Your task to perform on an android device: Search for "alienware aurora" on ebay, select the first entry, and add it to the cart. Image 0: 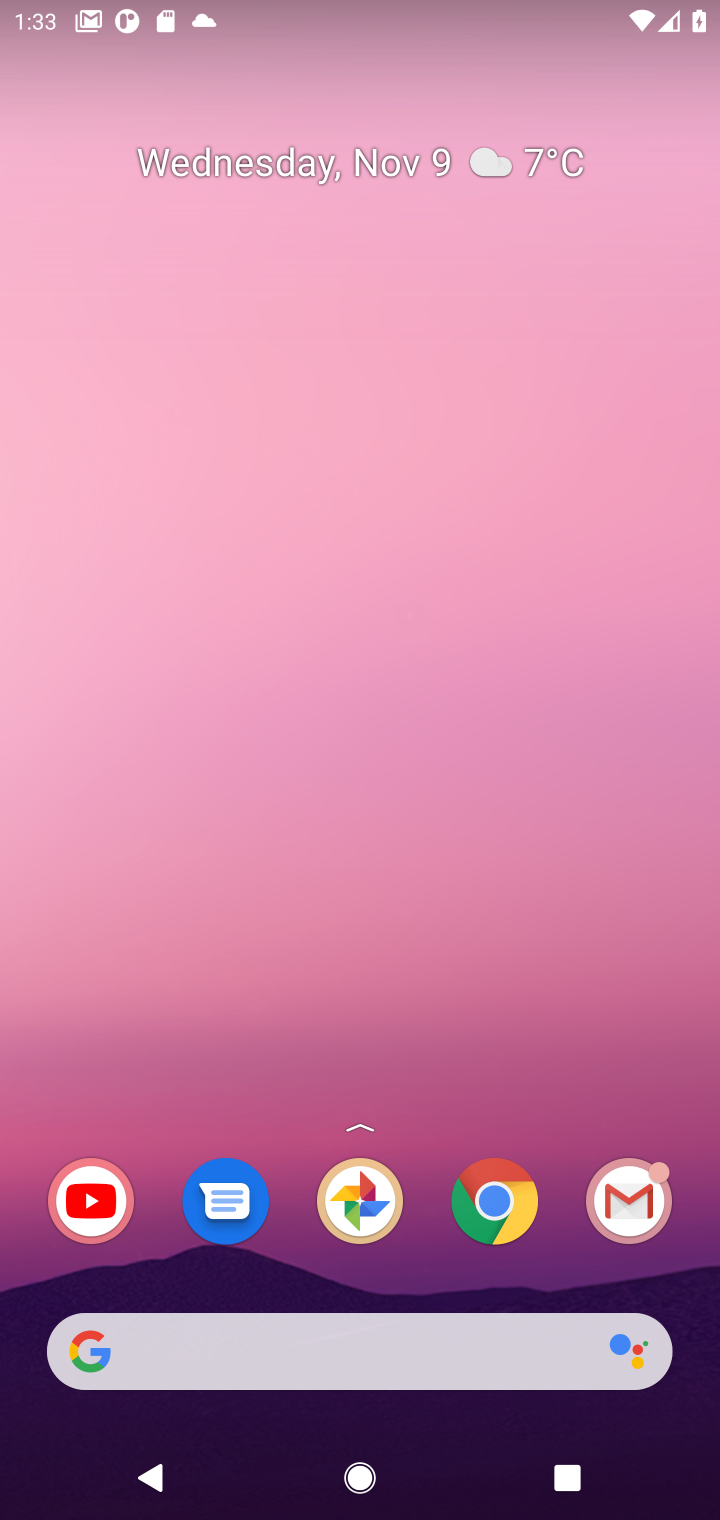
Step 0: click (345, 1353)
Your task to perform on an android device: Search for "alienware aurora" on ebay, select the first entry, and add it to the cart. Image 1: 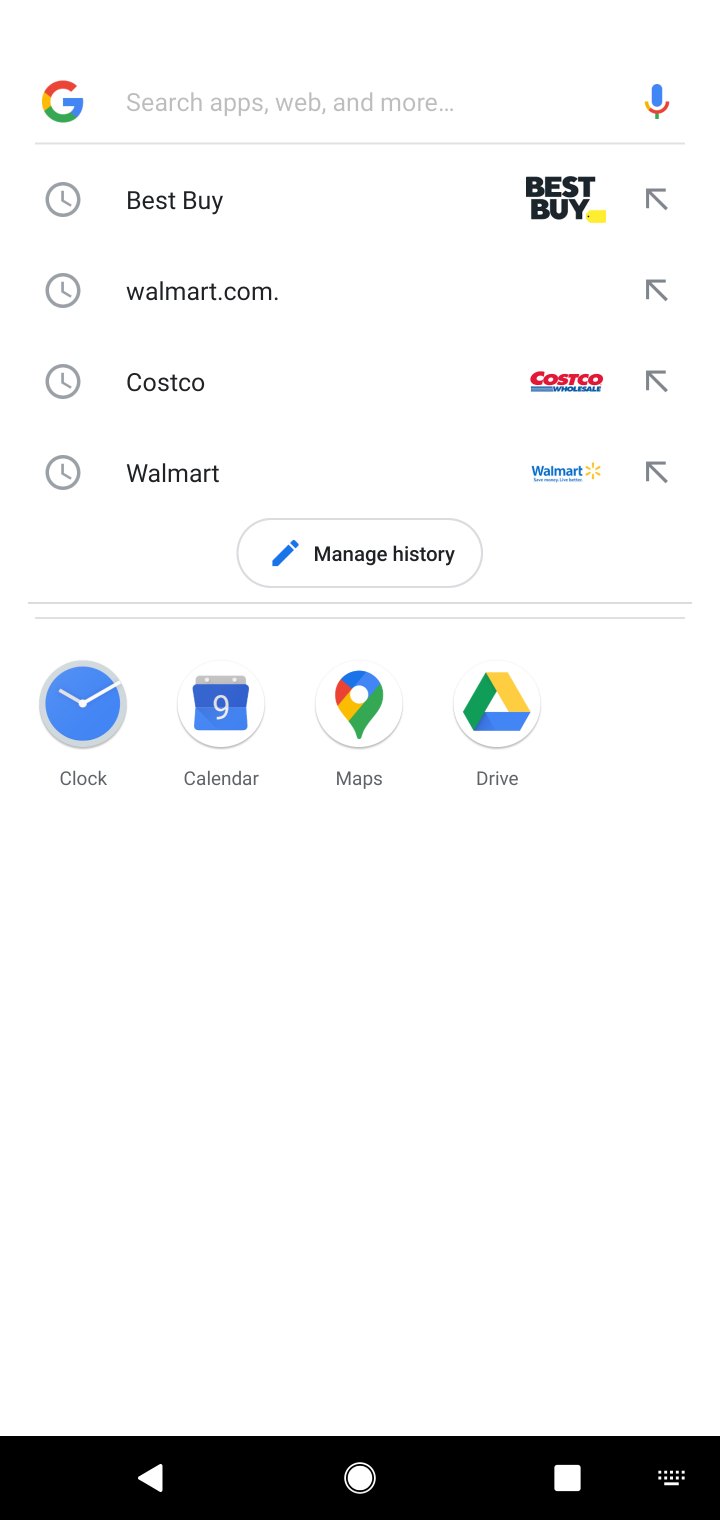
Step 1: type "ebay"
Your task to perform on an android device: Search for "alienware aurora" on ebay, select the first entry, and add it to the cart. Image 2: 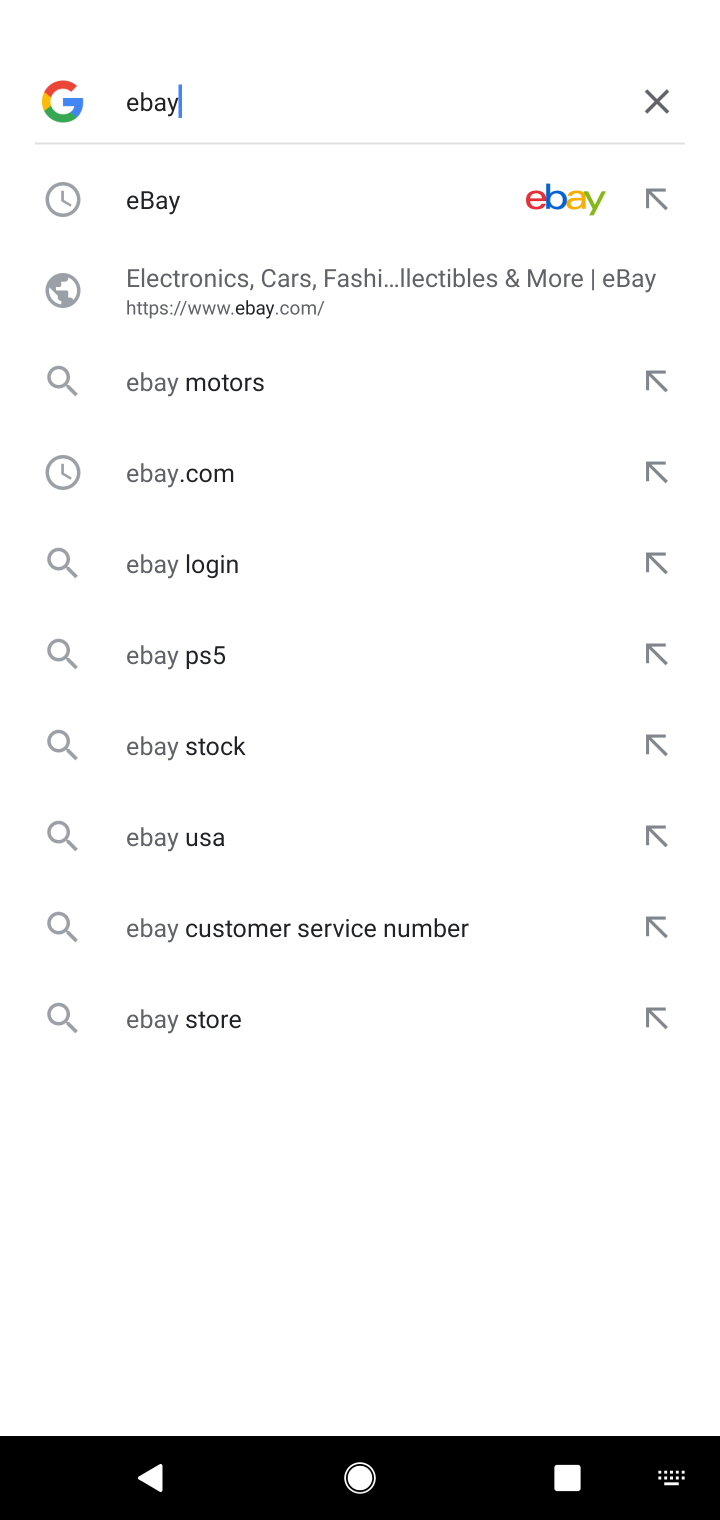
Step 2: click (233, 210)
Your task to perform on an android device: Search for "alienware aurora" on ebay, select the first entry, and add it to the cart. Image 3: 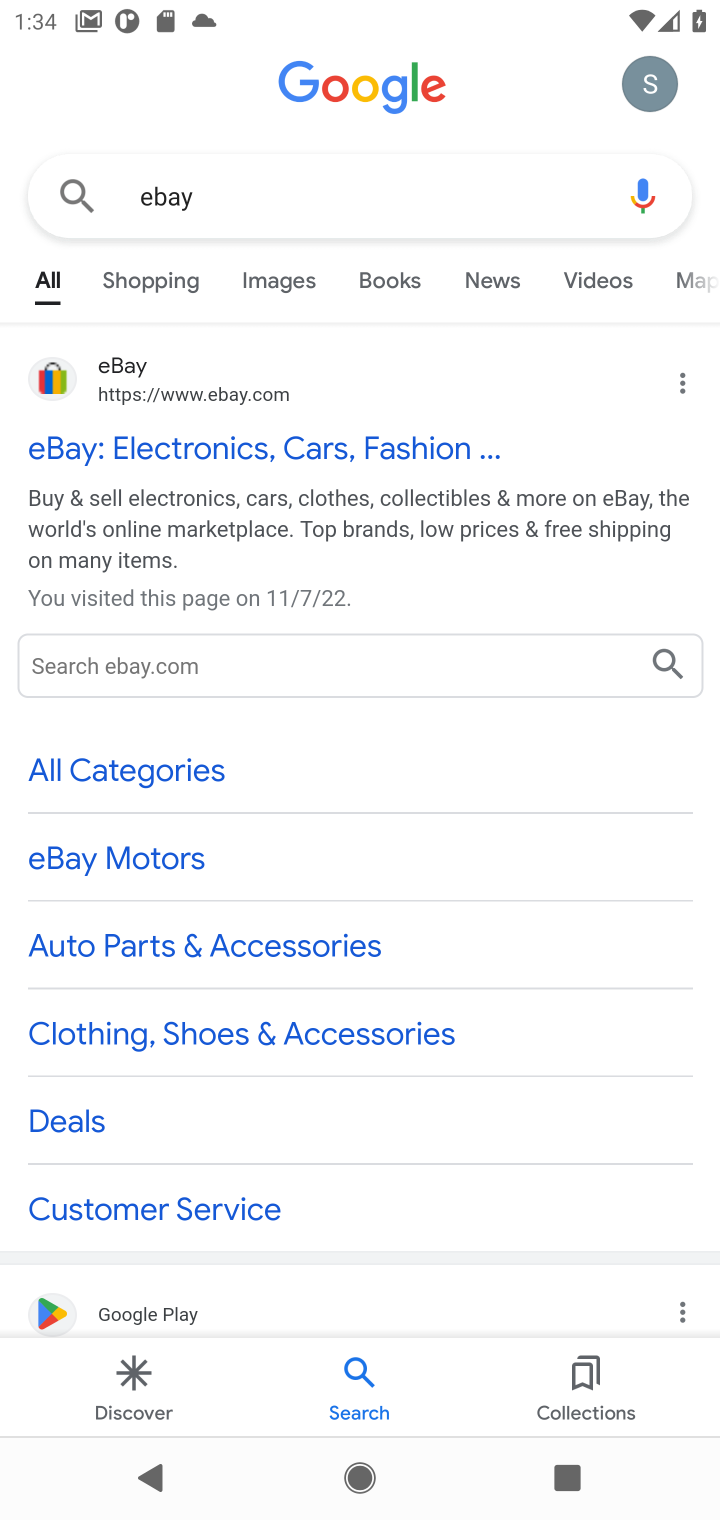
Step 3: click (167, 457)
Your task to perform on an android device: Search for "alienware aurora" on ebay, select the first entry, and add it to the cart. Image 4: 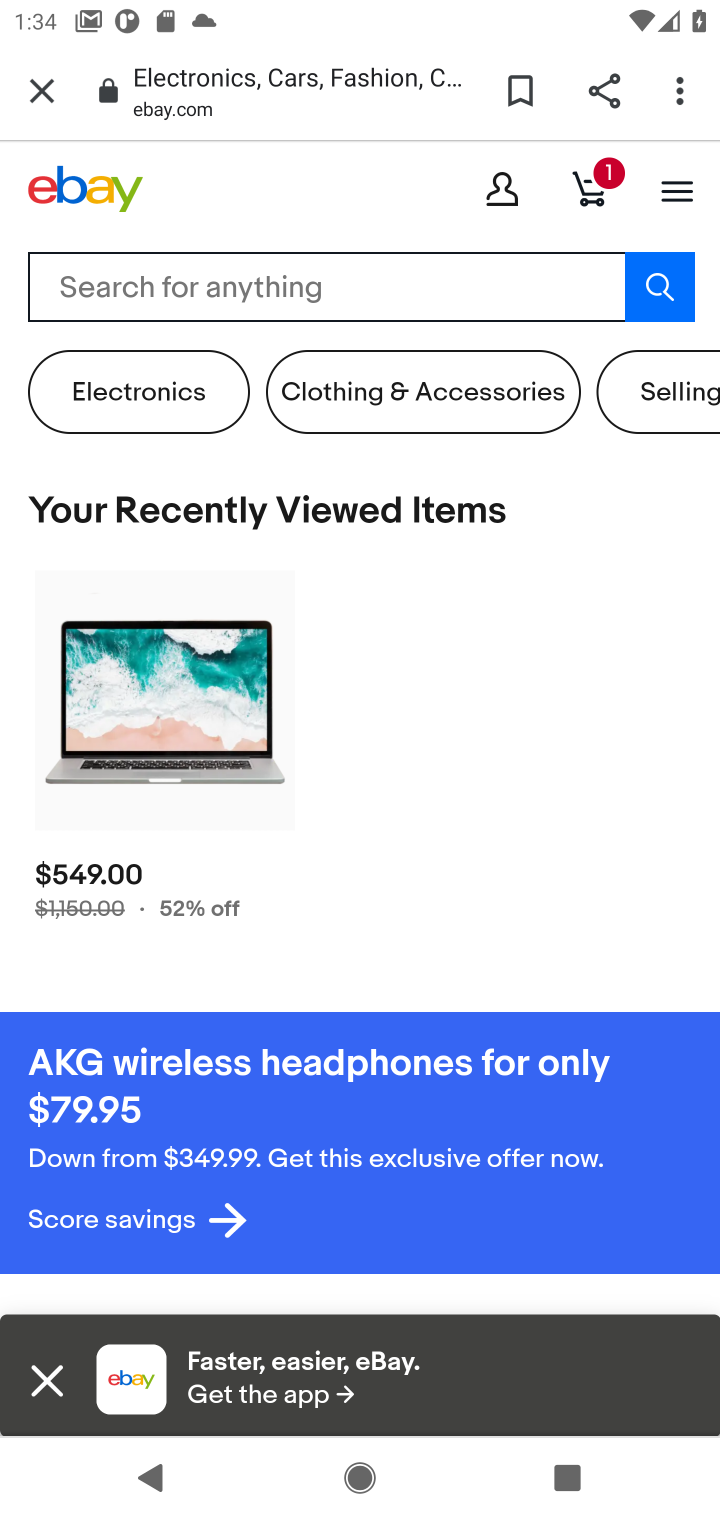
Step 4: click (265, 277)
Your task to perform on an android device: Search for "alienware aurora" on ebay, select the first entry, and add it to the cart. Image 5: 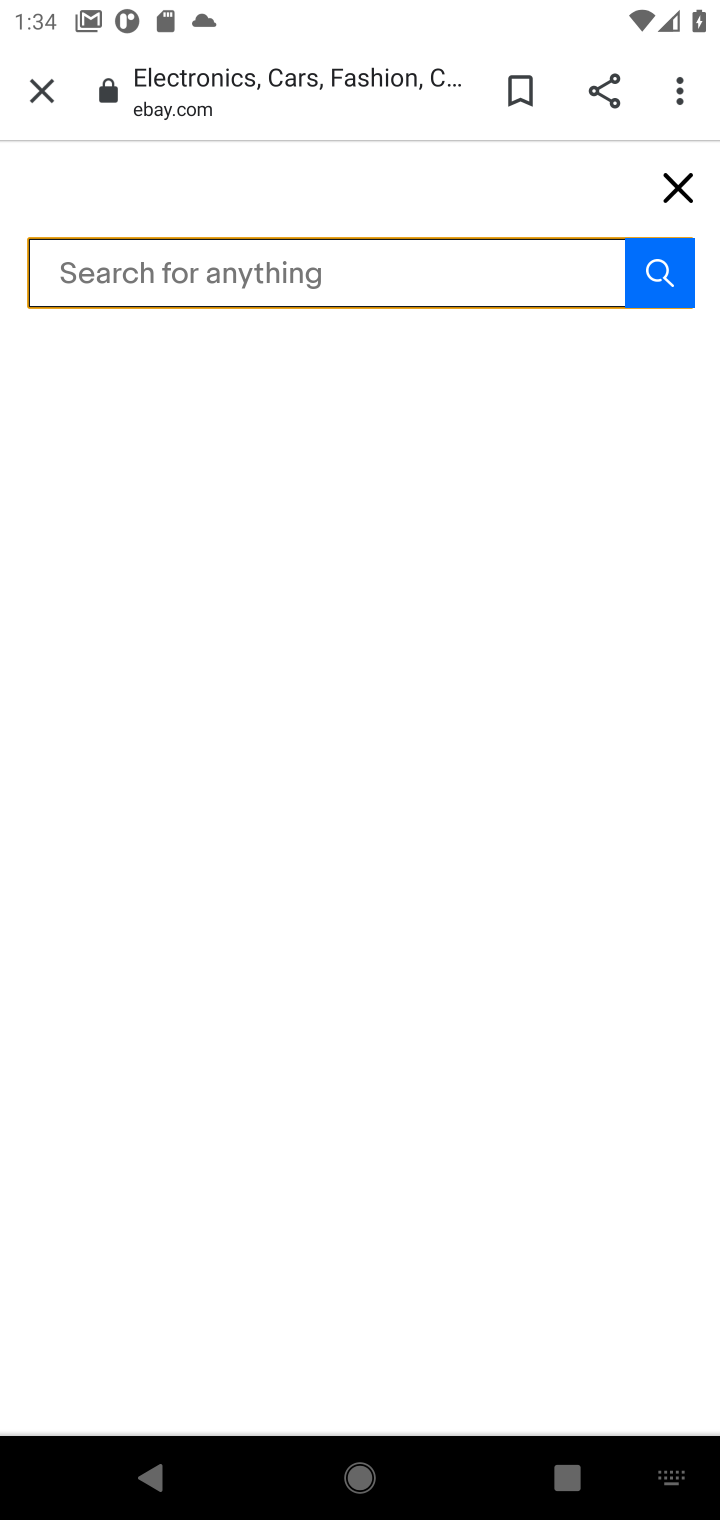
Step 5: type "alienware aurora""
Your task to perform on an android device: Search for "alienware aurora" on ebay, select the first entry, and add it to the cart. Image 6: 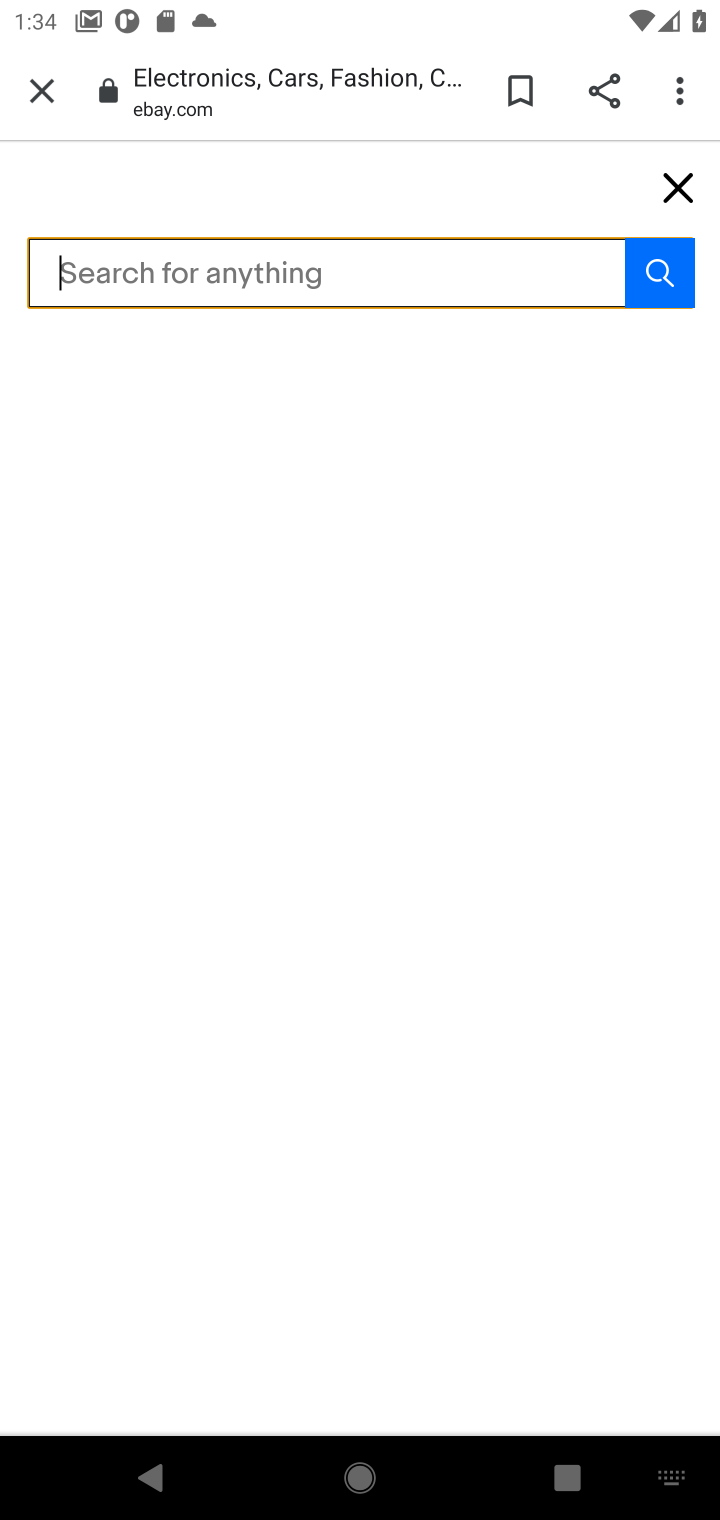
Step 6: click (370, 258)
Your task to perform on an android device: Search for "alienware aurora" on ebay, select the first entry, and add it to the cart. Image 7: 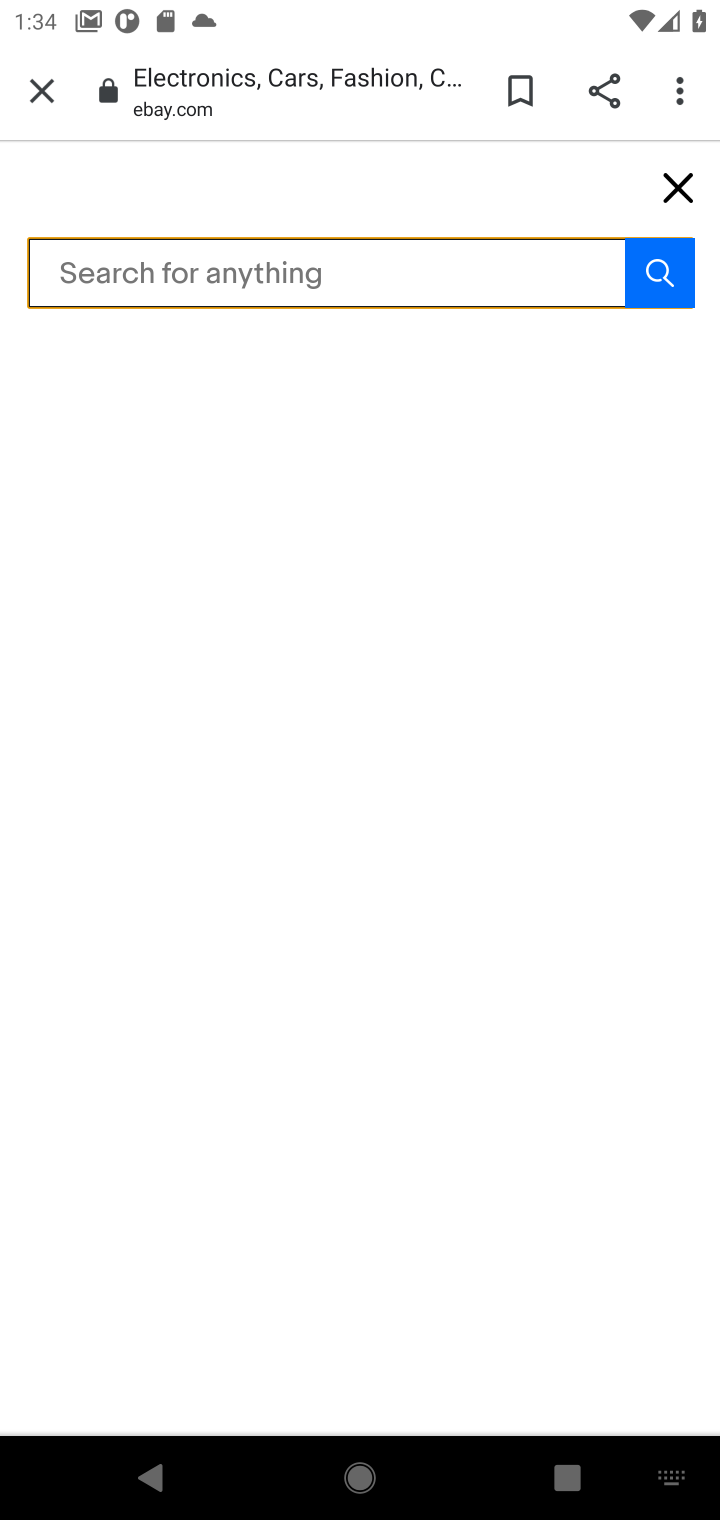
Step 7: type "alienware aurora""
Your task to perform on an android device: Search for "alienware aurora" on ebay, select the first entry, and add it to the cart. Image 8: 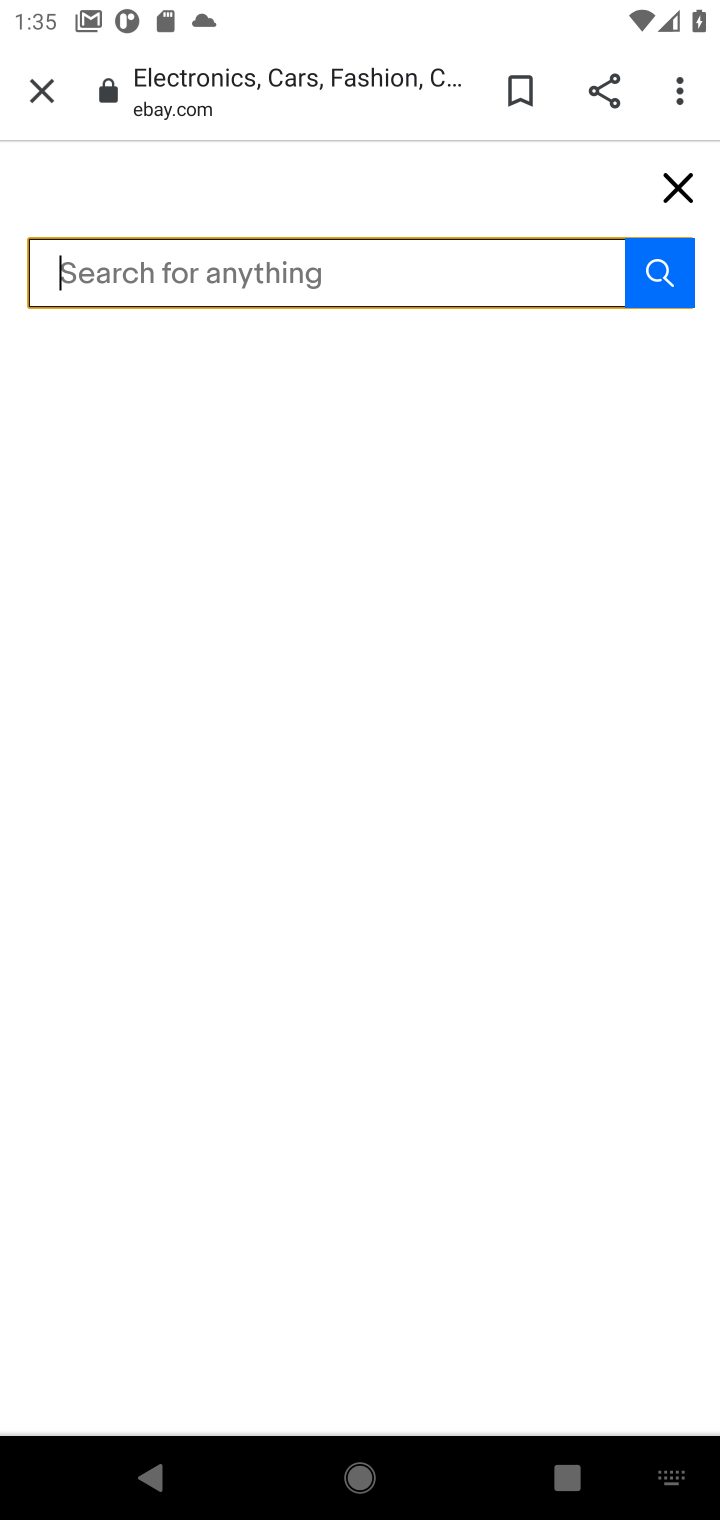
Step 8: task complete